Your task to perform on an android device: Open notification settings Image 0: 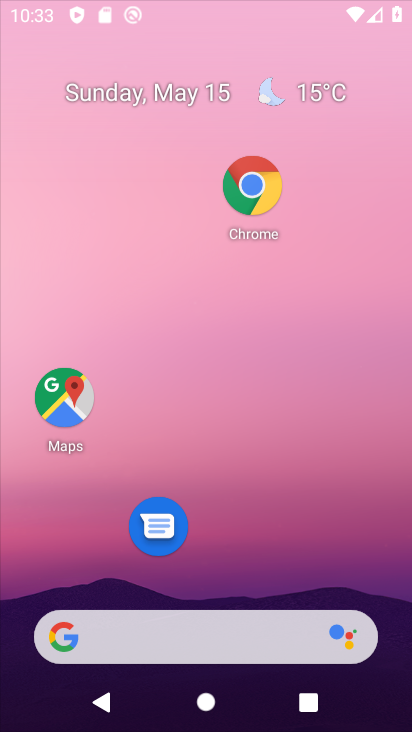
Step 0: drag from (245, 491) to (243, 51)
Your task to perform on an android device: Open notification settings Image 1: 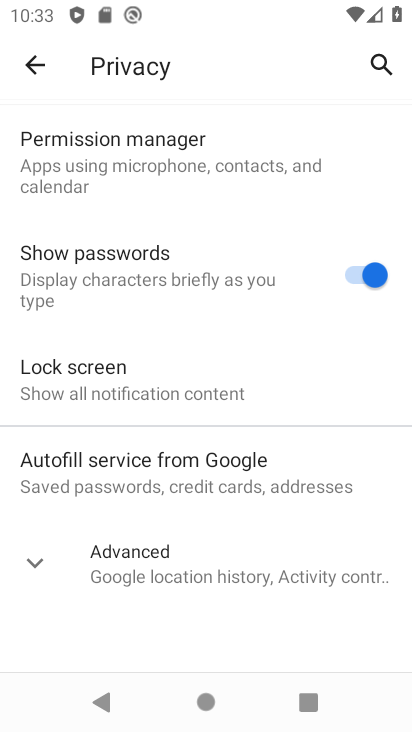
Step 1: press home button
Your task to perform on an android device: Open notification settings Image 2: 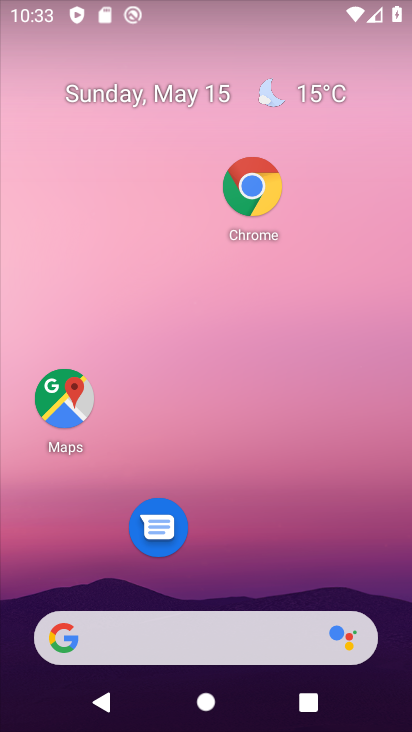
Step 2: drag from (238, 571) to (240, 0)
Your task to perform on an android device: Open notification settings Image 3: 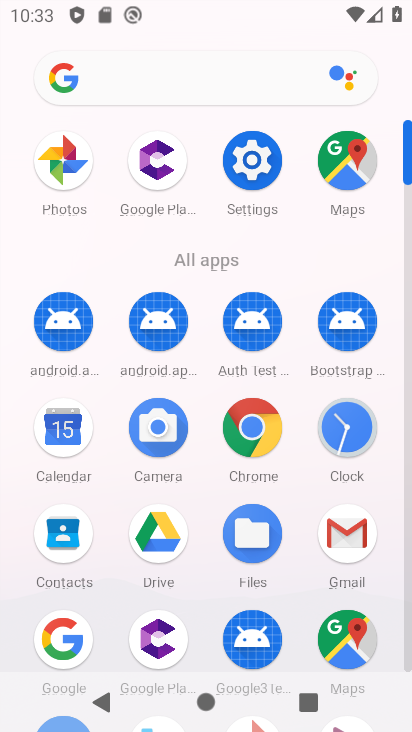
Step 3: click (245, 192)
Your task to perform on an android device: Open notification settings Image 4: 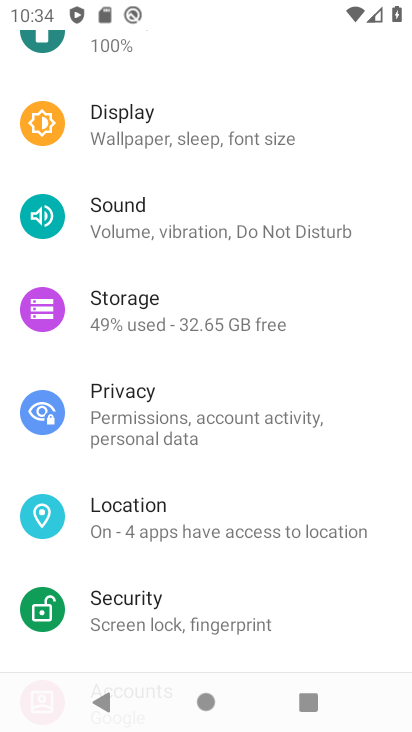
Step 4: drag from (183, 309) to (181, 538)
Your task to perform on an android device: Open notification settings Image 5: 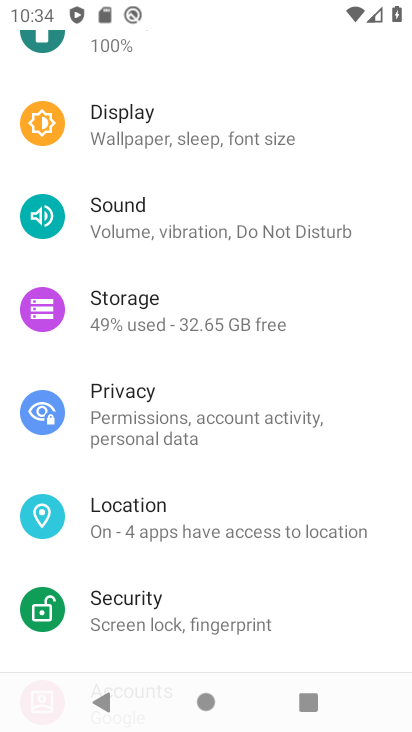
Step 5: drag from (228, 387) to (210, 726)
Your task to perform on an android device: Open notification settings Image 6: 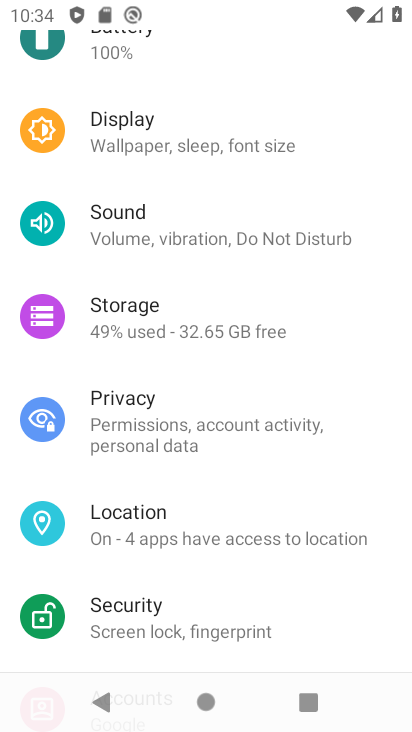
Step 6: drag from (193, 467) to (212, 697)
Your task to perform on an android device: Open notification settings Image 7: 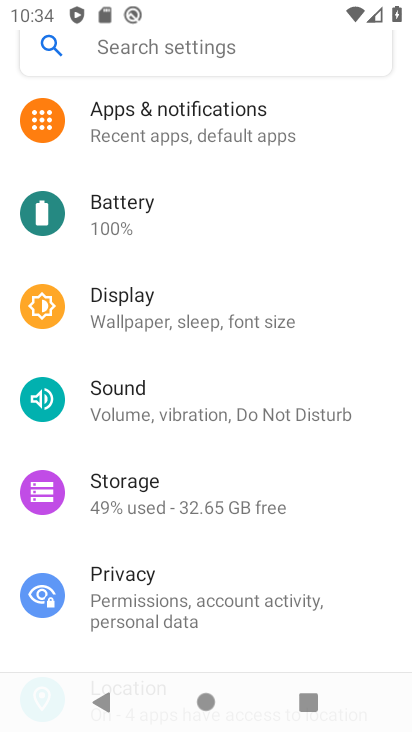
Step 7: drag from (204, 288) to (188, 729)
Your task to perform on an android device: Open notification settings Image 8: 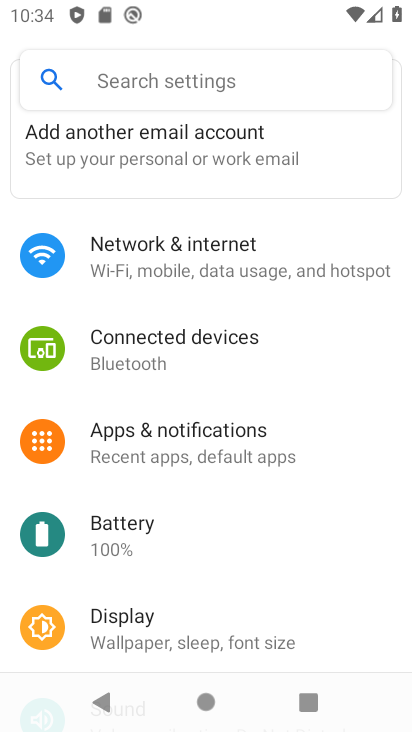
Step 8: click (167, 273)
Your task to perform on an android device: Open notification settings Image 9: 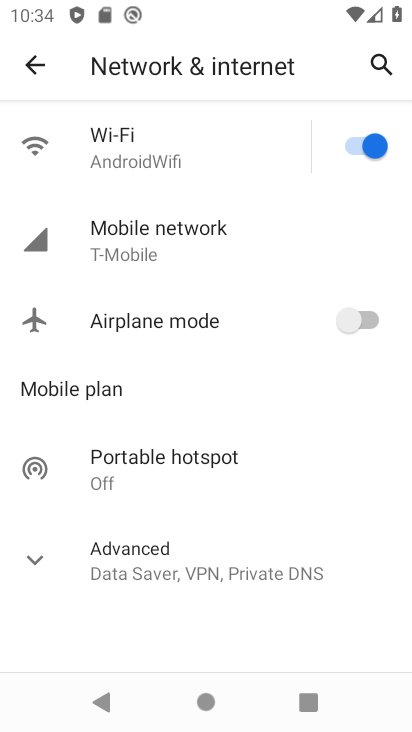
Step 9: click (138, 134)
Your task to perform on an android device: Open notification settings Image 10: 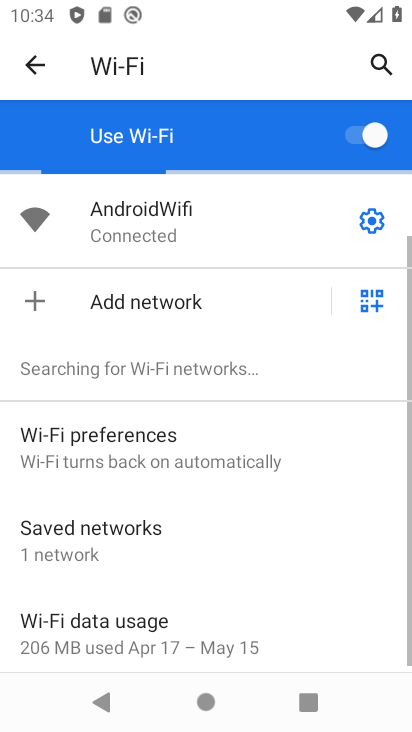
Step 10: task complete